Your task to perform on an android device: change your default location settings in chrome Image 0: 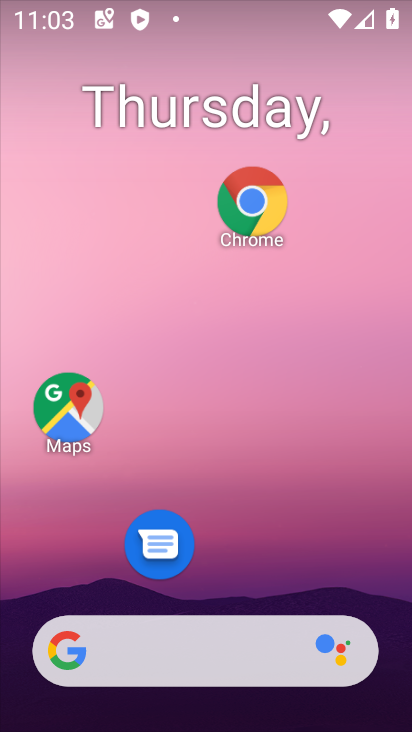
Step 0: click (251, 204)
Your task to perform on an android device: change your default location settings in chrome Image 1: 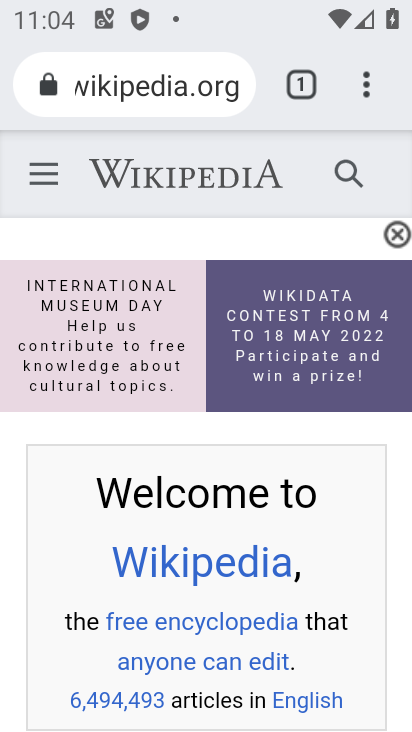
Step 1: click (366, 86)
Your task to perform on an android device: change your default location settings in chrome Image 2: 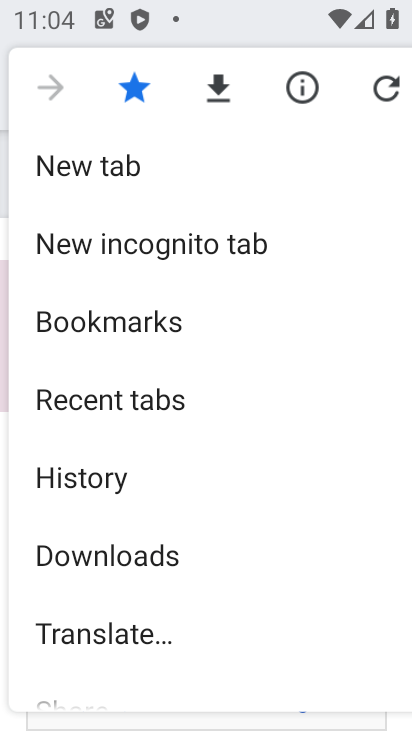
Step 2: drag from (181, 626) to (212, 176)
Your task to perform on an android device: change your default location settings in chrome Image 3: 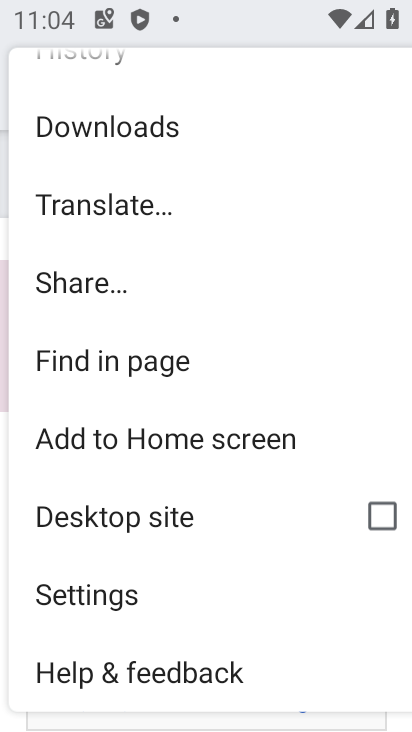
Step 3: click (150, 584)
Your task to perform on an android device: change your default location settings in chrome Image 4: 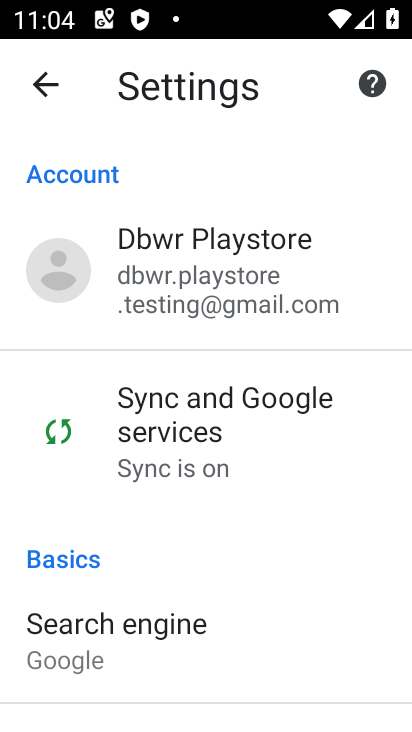
Step 4: drag from (225, 598) to (233, 219)
Your task to perform on an android device: change your default location settings in chrome Image 5: 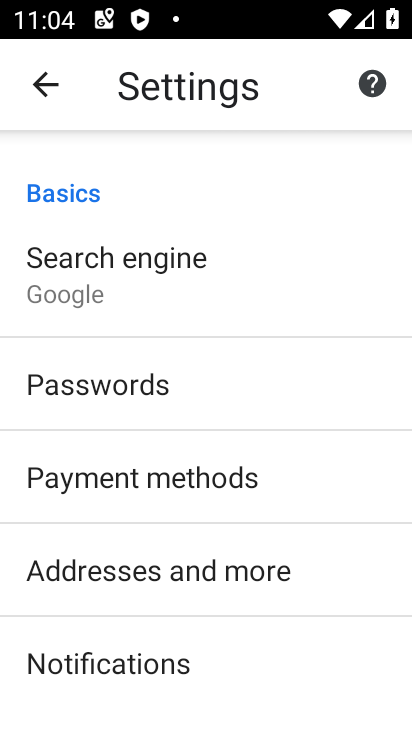
Step 5: drag from (213, 649) to (210, 164)
Your task to perform on an android device: change your default location settings in chrome Image 6: 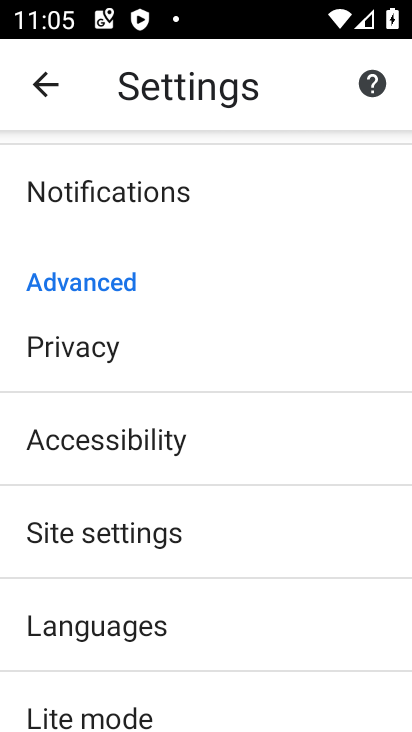
Step 6: click (205, 533)
Your task to perform on an android device: change your default location settings in chrome Image 7: 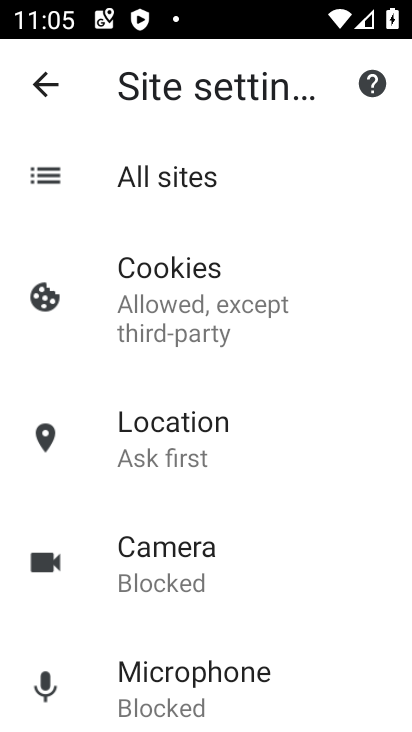
Step 7: click (231, 443)
Your task to perform on an android device: change your default location settings in chrome Image 8: 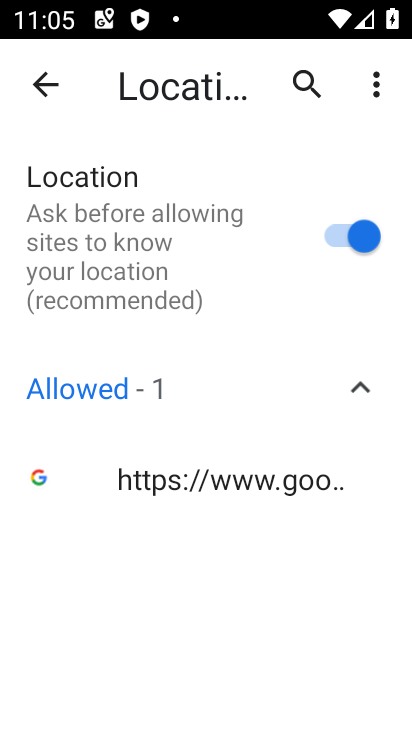
Step 8: click (341, 232)
Your task to perform on an android device: change your default location settings in chrome Image 9: 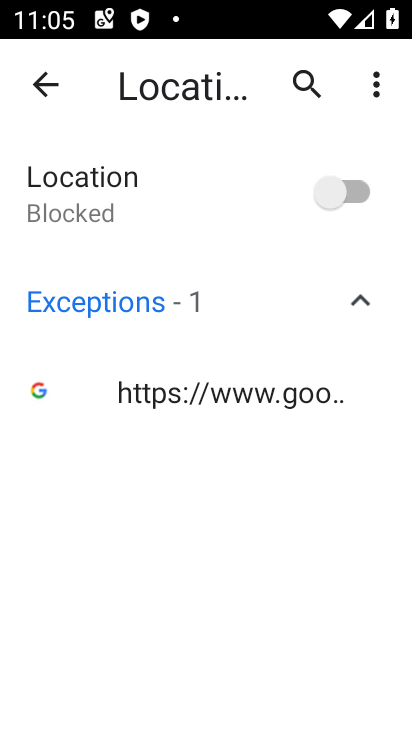
Step 9: task complete